Your task to perform on an android device: Open the stopwatch Image 0: 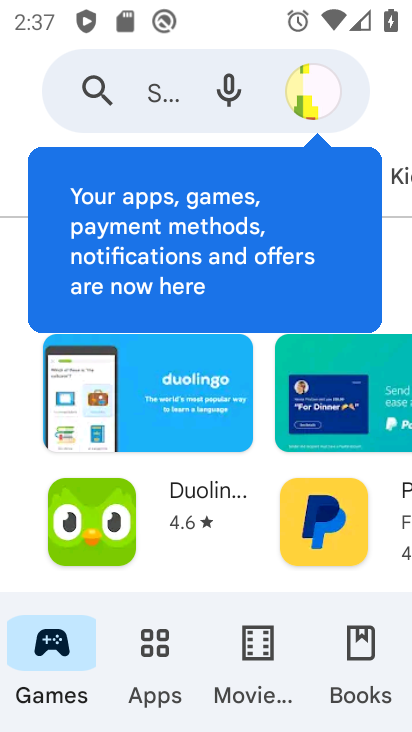
Step 0: press home button
Your task to perform on an android device: Open the stopwatch Image 1: 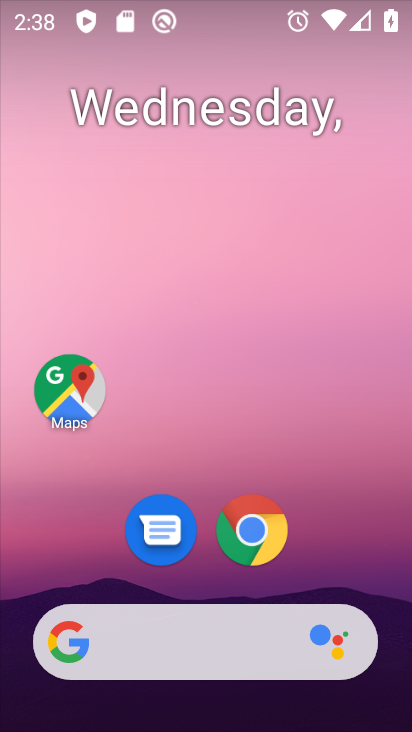
Step 1: drag from (195, 408) to (114, 31)
Your task to perform on an android device: Open the stopwatch Image 2: 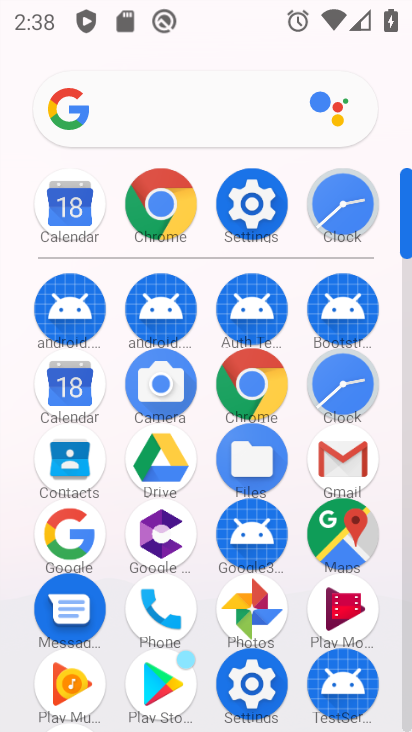
Step 2: click (343, 390)
Your task to perform on an android device: Open the stopwatch Image 3: 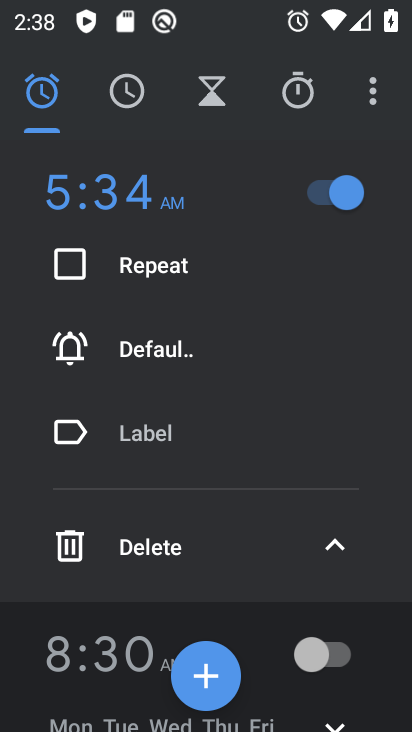
Step 3: click (305, 83)
Your task to perform on an android device: Open the stopwatch Image 4: 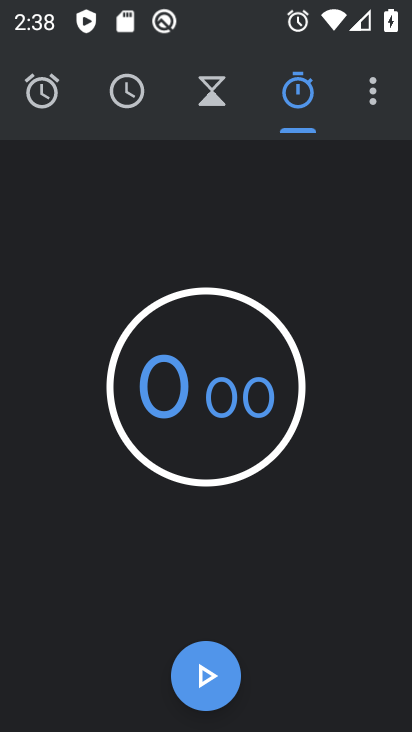
Step 4: task complete